Your task to perform on an android device: Search for Italian restaurants on Maps Image 0: 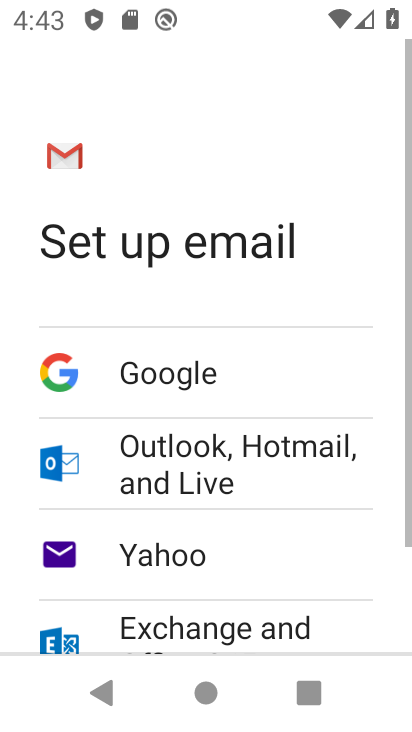
Step 0: press home button
Your task to perform on an android device: Search for Italian restaurants on Maps Image 1: 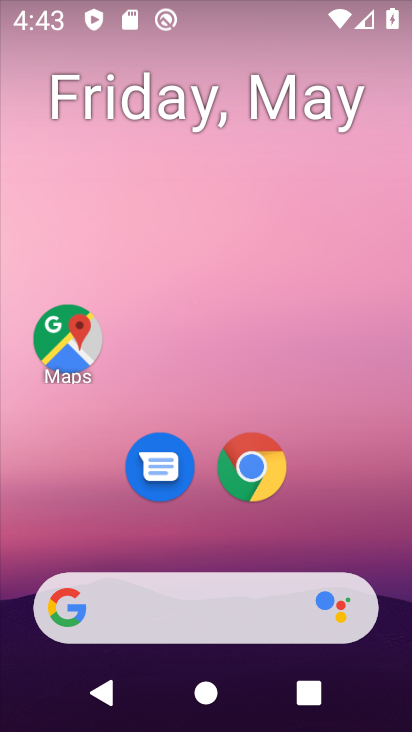
Step 1: click (73, 345)
Your task to perform on an android device: Search for Italian restaurants on Maps Image 2: 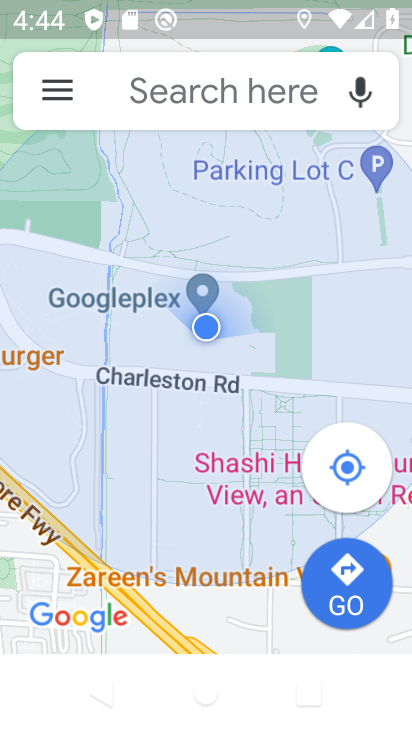
Step 2: click (149, 83)
Your task to perform on an android device: Search for Italian restaurants on Maps Image 3: 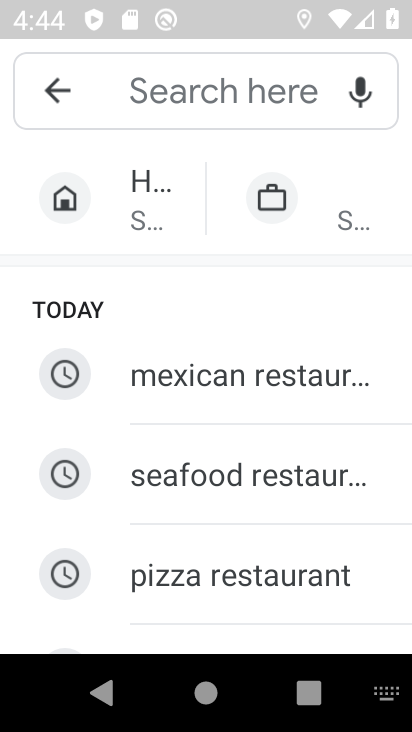
Step 3: type "ilalian restaurants"
Your task to perform on an android device: Search for Italian restaurants on Maps Image 4: 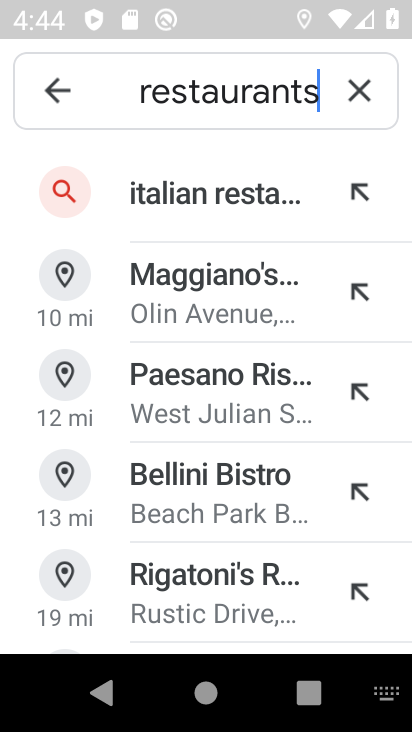
Step 4: click (248, 194)
Your task to perform on an android device: Search for Italian restaurants on Maps Image 5: 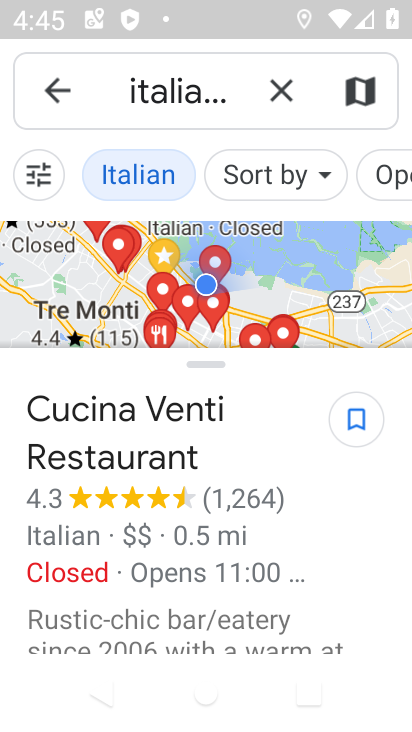
Step 5: task complete